Your task to perform on an android device: toggle translation in the chrome app Image 0: 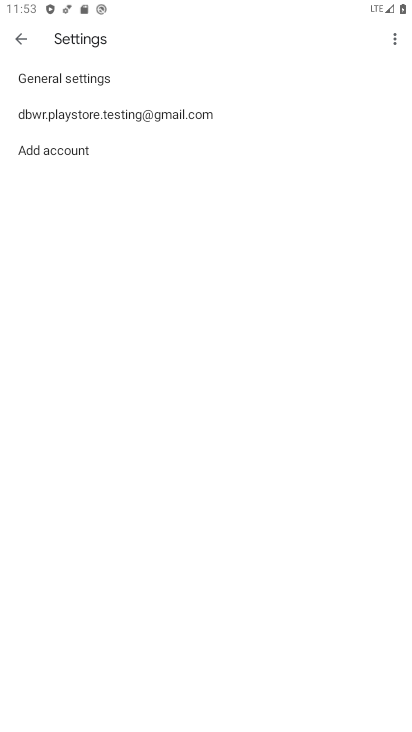
Step 0: press home button
Your task to perform on an android device: toggle translation in the chrome app Image 1: 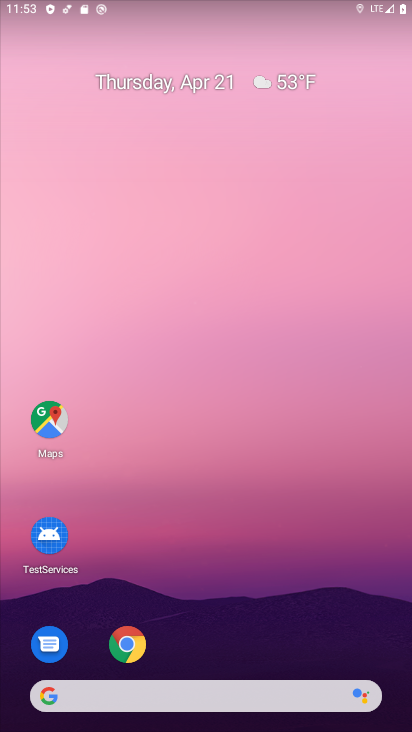
Step 1: drag from (273, 621) to (204, 117)
Your task to perform on an android device: toggle translation in the chrome app Image 2: 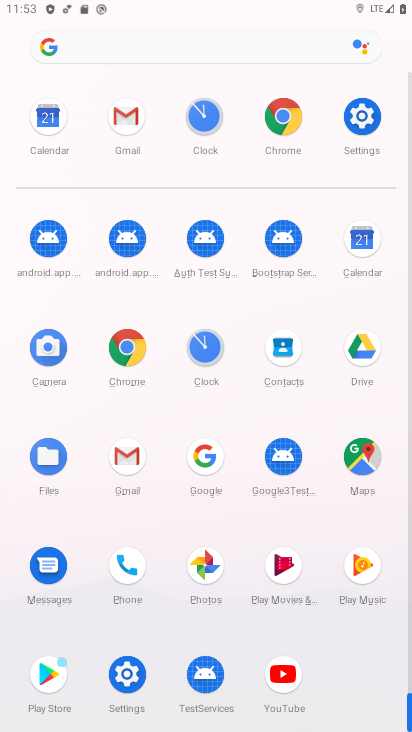
Step 2: click (138, 341)
Your task to perform on an android device: toggle translation in the chrome app Image 3: 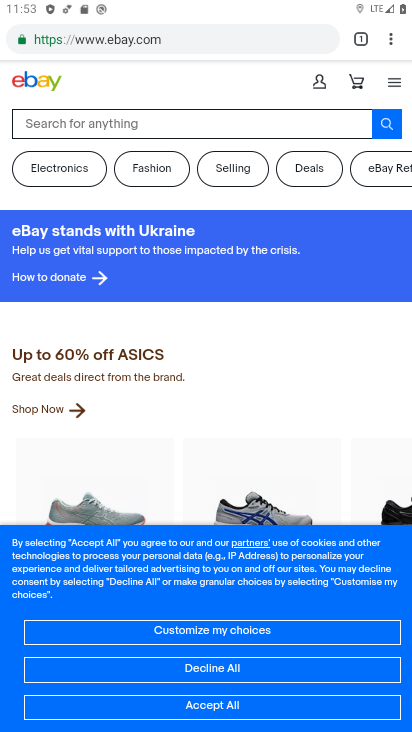
Step 3: click (394, 38)
Your task to perform on an android device: toggle translation in the chrome app Image 4: 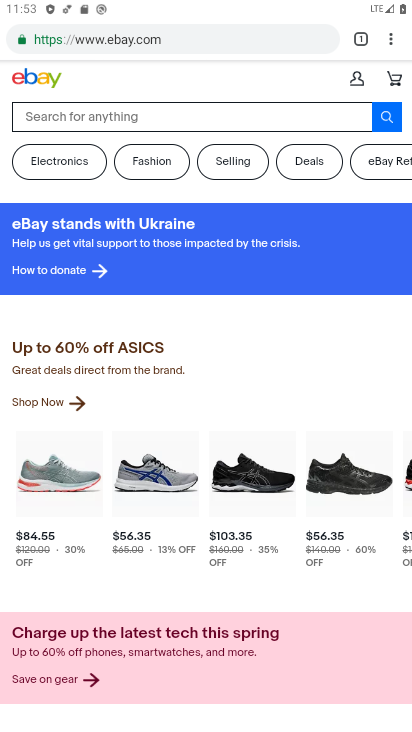
Step 4: drag from (391, 43) to (291, 491)
Your task to perform on an android device: toggle translation in the chrome app Image 5: 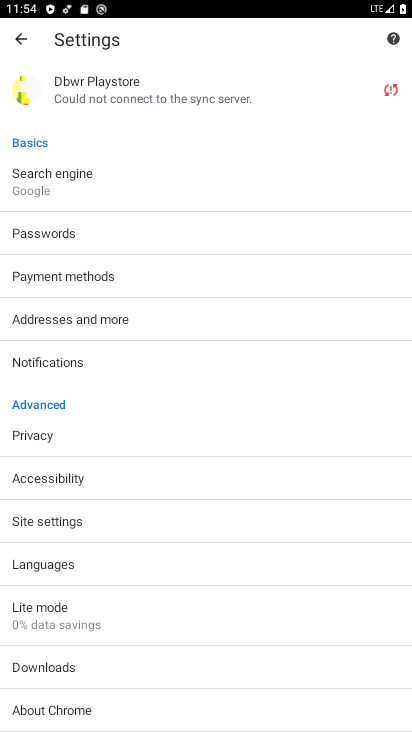
Step 5: click (66, 559)
Your task to perform on an android device: toggle translation in the chrome app Image 6: 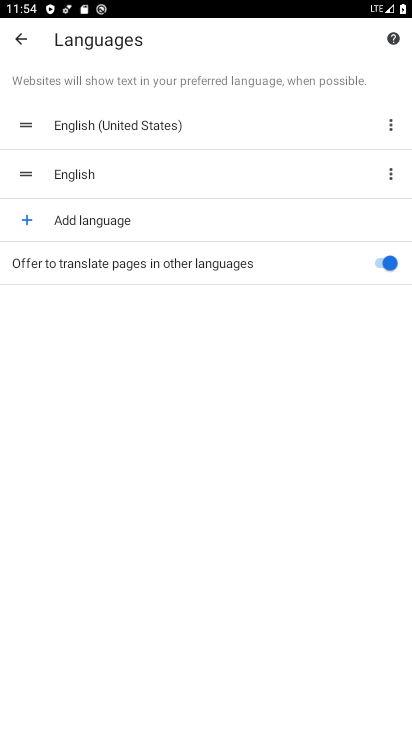
Step 6: click (373, 249)
Your task to perform on an android device: toggle translation in the chrome app Image 7: 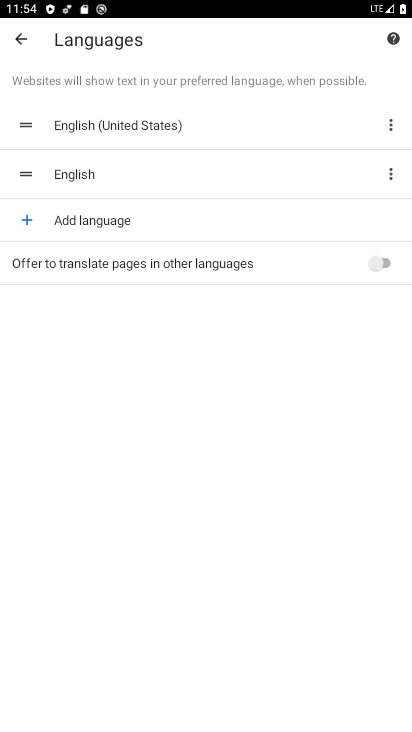
Step 7: task complete